Your task to perform on an android device: Is it going to rain today? Image 0: 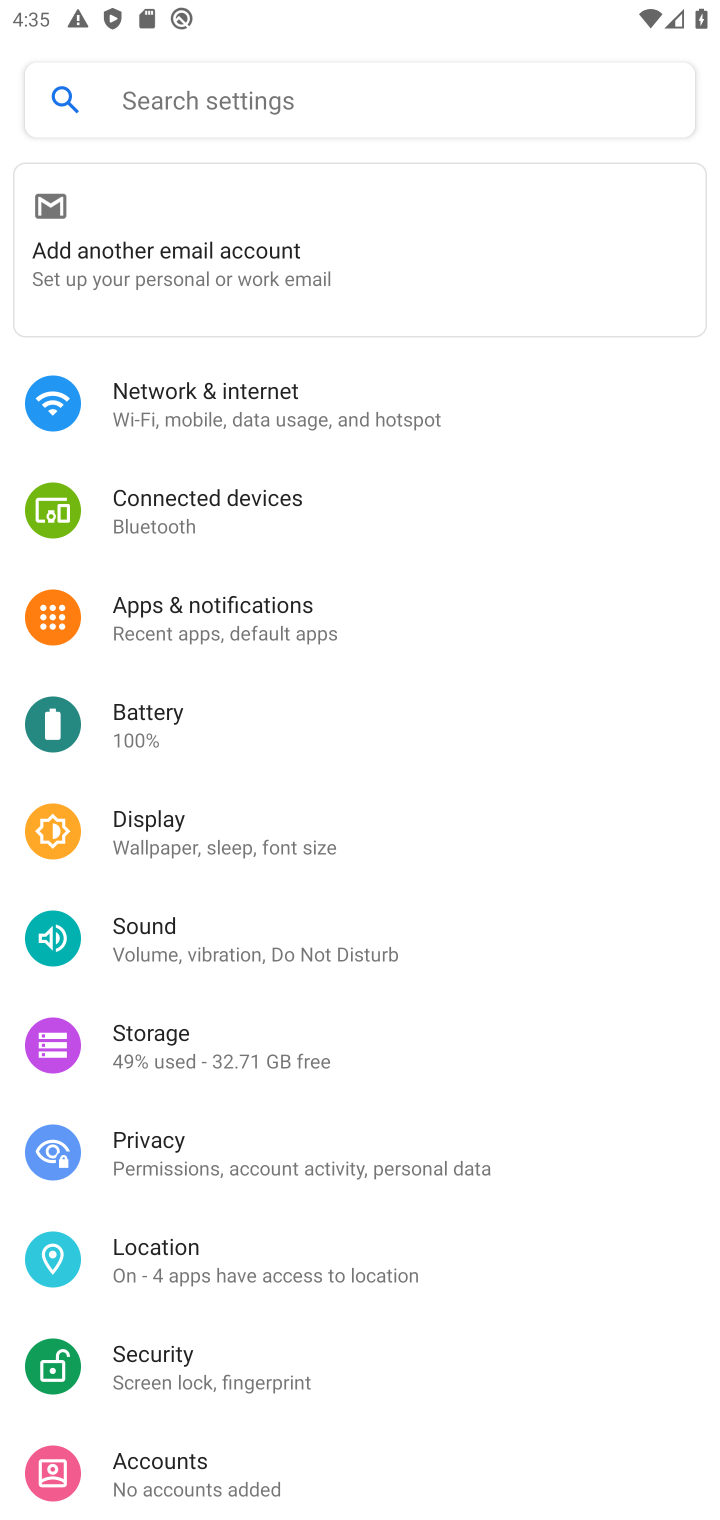
Step 0: task complete